Your task to perform on an android device: When is my next appointment? Image 0: 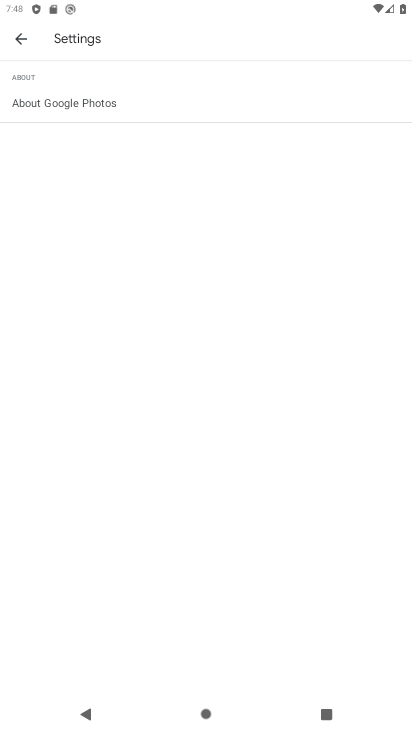
Step 0: press home button
Your task to perform on an android device: When is my next appointment? Image 1: 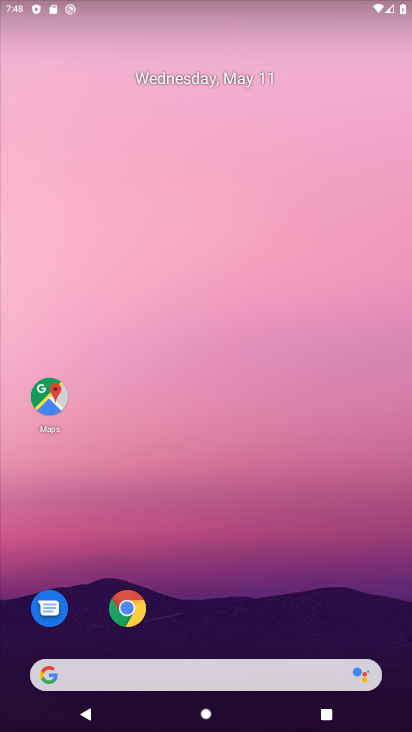
Step 1: click (187, 72)
Your task to perform on an android device: When is my next appointment? Image 2: 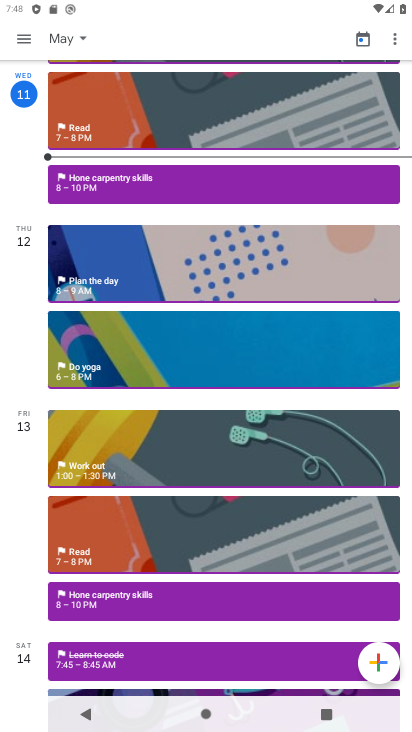
Step 2: task complete